Your task to perform on an android device: Go to wifi settings Image 0: 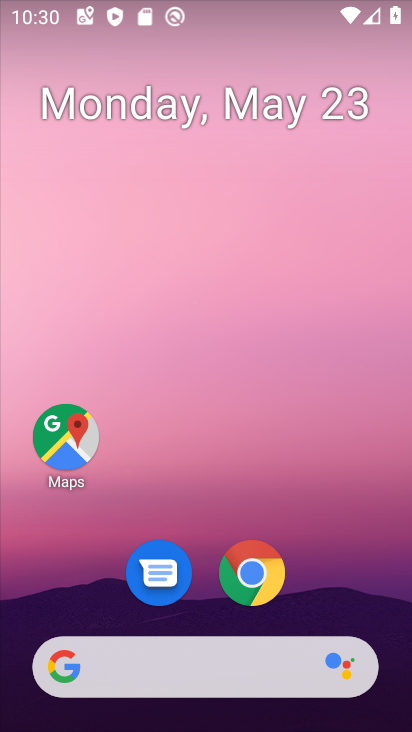
Step 0: drag from (220, 645) to (268, 136)
Your task to perform on an android device: Go to wifi settings Image 1: 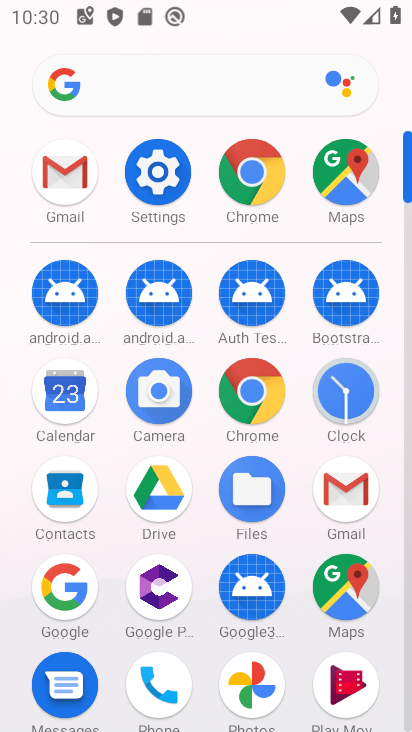
Step 1: click (162, 184)
Your task to perform on an android device: Go to wifi settings Image 2: 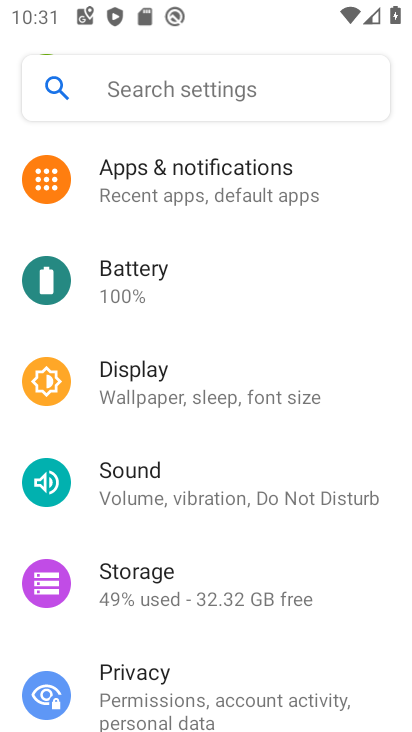
Step 2: drag from (189, 244) to (179, 595)
Your task to perform on an android device: Go to wifi settings Image 3: 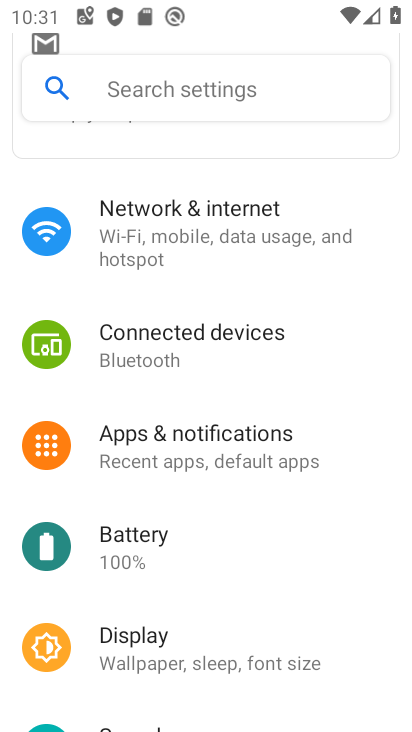
Step 3: click (237, 255)
Your task to perform on an android device: Go to wifi settings Image 4: 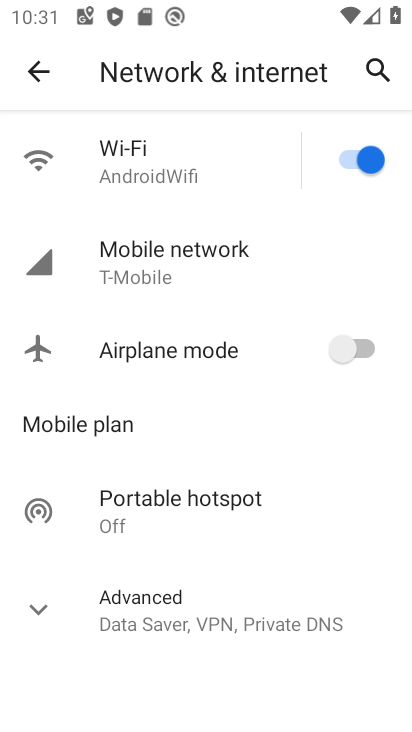
Step 4: click (181, 152)
Your task to perform on an android device: Go to wifi settings Image 5: 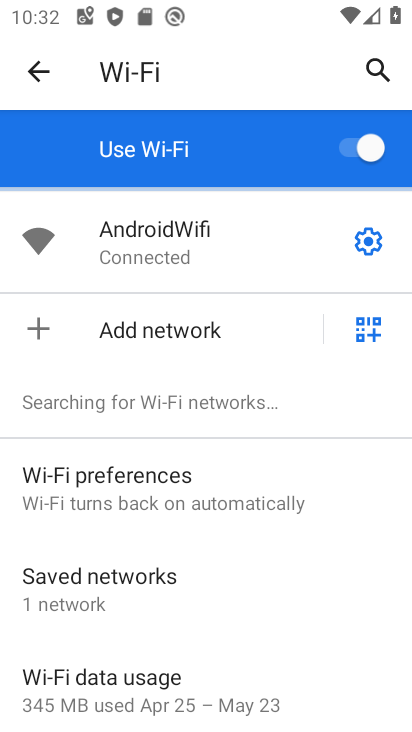
Step 5: task complete